Your task to perform on an android device: turn notification dots off Image 0: 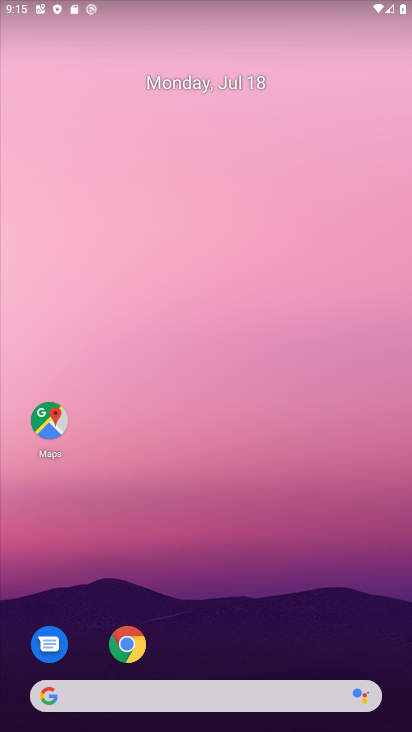
Step 0: drag from (192, 682) to (164, 44)
Your task to perform on an android device: turn notification dots off Image 1: 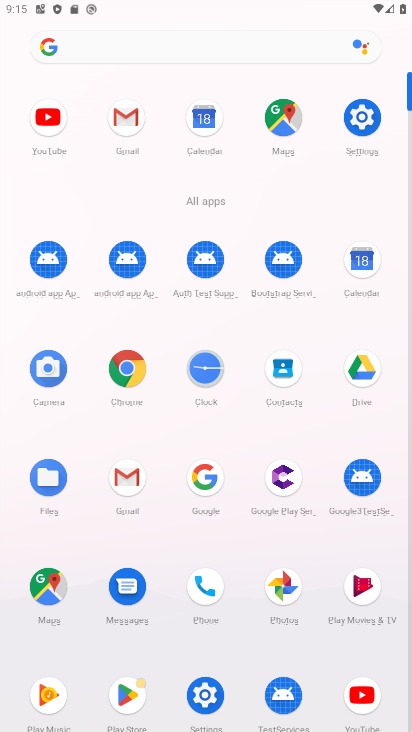
Step 1: click (357, 128)
Your task to perform on an android device: turn notification dots off Image 2: 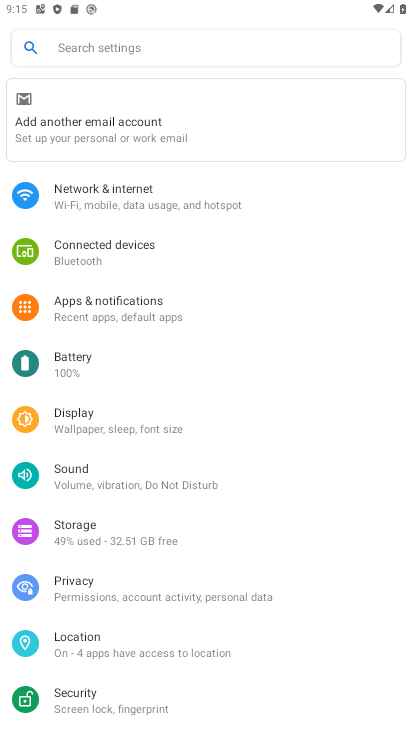
Step 2: click (124, 308)
Your task to perform on an android device: turn notification dots off Image 3: 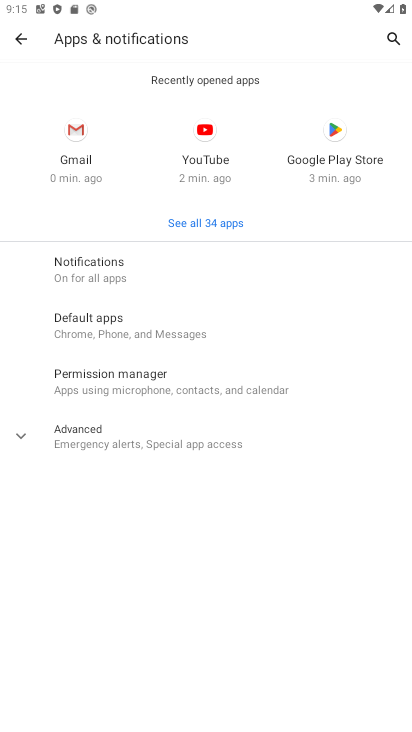
Step 3: click (82, 269)
Your task to perform on an android device: turn notification dots off Image 4: 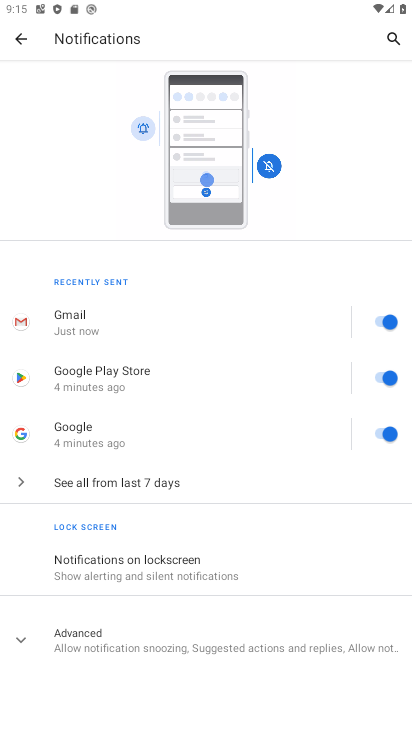
Step 4: click (121, 630)
Your task to perform on an android device: turn notification dots off Image 5: 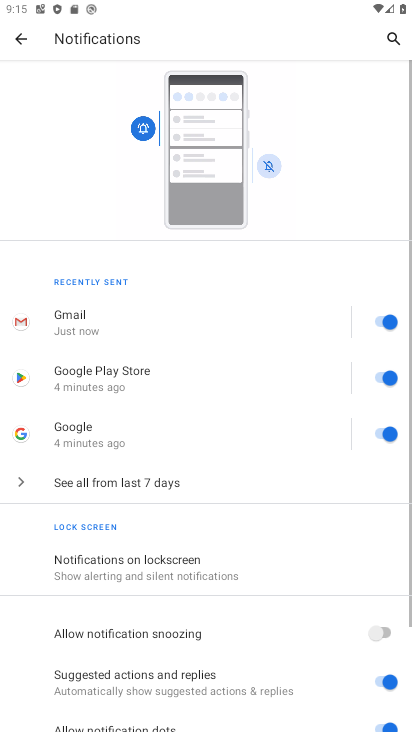
Step 5: drag from (125, 623) to (70, 218)
Your task to perform on an android device: turn notification dots off Image 6: 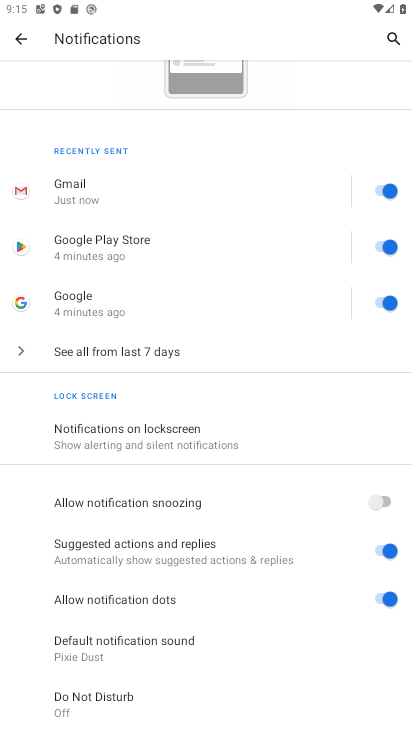
Step 6: click (377, 598)
Your task to perform on an android device: turn notification dots off Image 7: 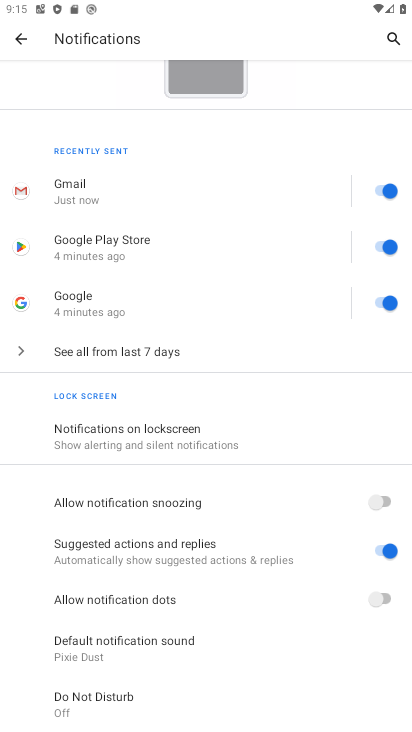
Step 7: task complete